Your task to perform on an android device: empty trash in google photos Image 0: 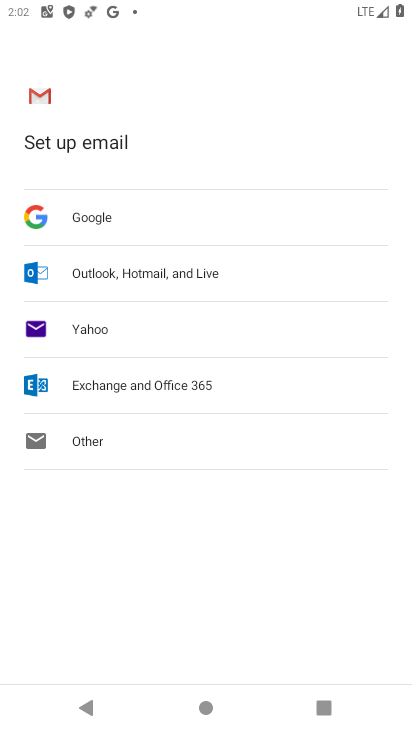
Step 0: press home button
Your task to perform on an android device: empty trash in google photos Image 1: 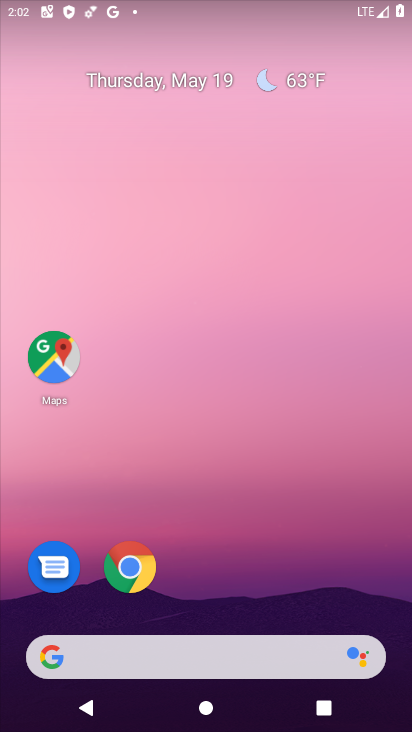
Step 1: drag from (260, 586) to (265, 44)
Your task to perform on an android device: empty trash in google photos Image 2: 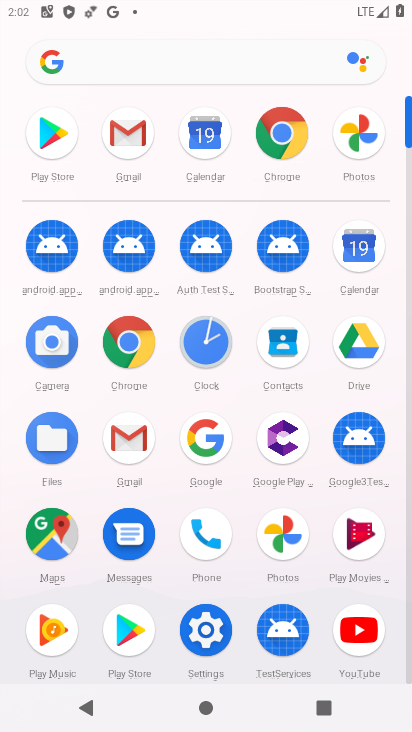
Step 2: click (285, 543)
Your task to perform on an android device: empty trash in google photos Image 3: 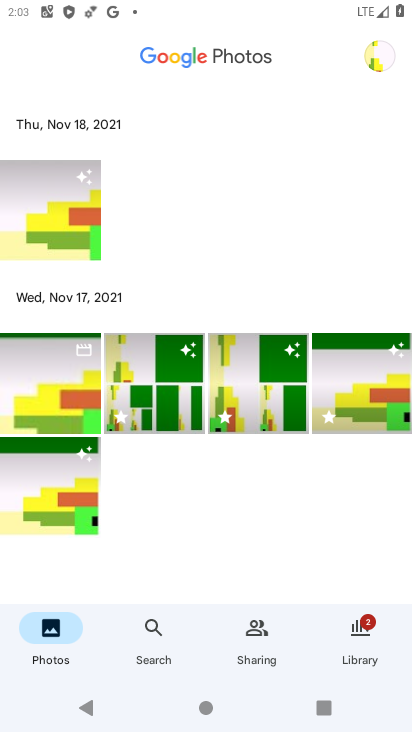
Step 3: task complete